Your task to perform on an android device: What's the weather today? Image 0: 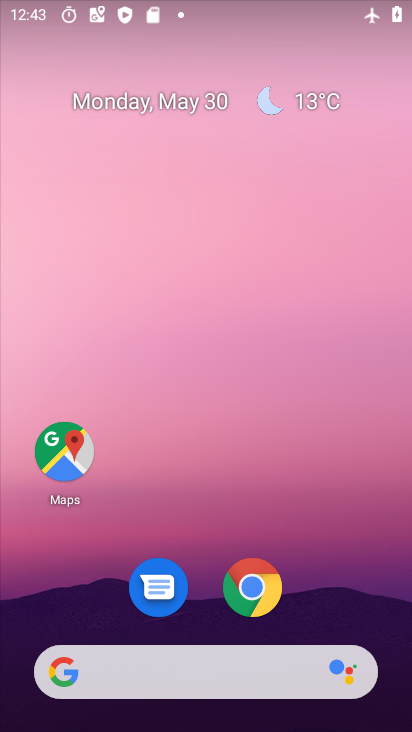
Step 0: drag from (334, 441) to (231, 6)
Your task to perform on an android device: What's the weather today? Image 1: 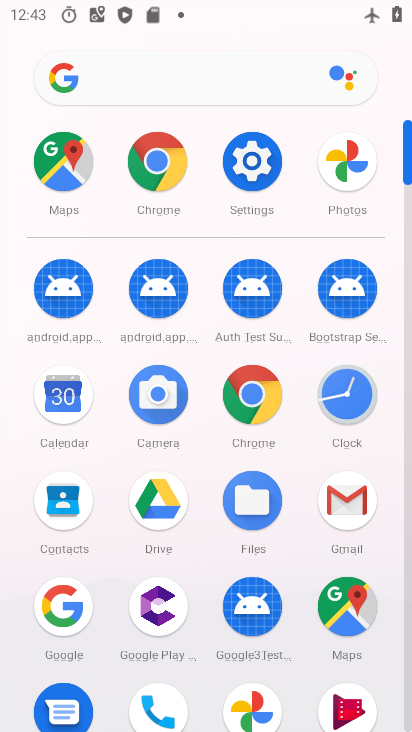
Step 1: press home button
Your task to perform on an android device: What's the weather today? Image 2: 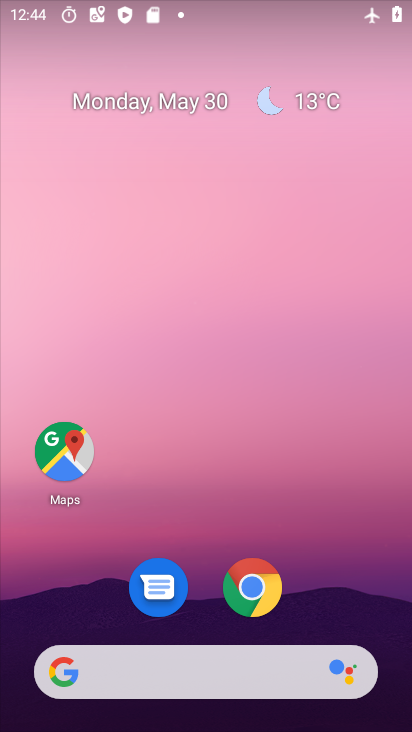
Step 2: click (323, 96)
Your task to perform on an android device: What's the weather today? Image 3: 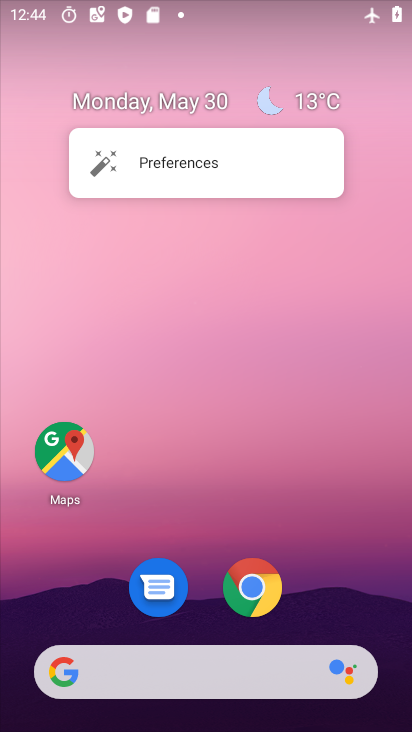
Step 3: click (311, 105)
Your task to perform on an android device: What's the weather today? Image 4: 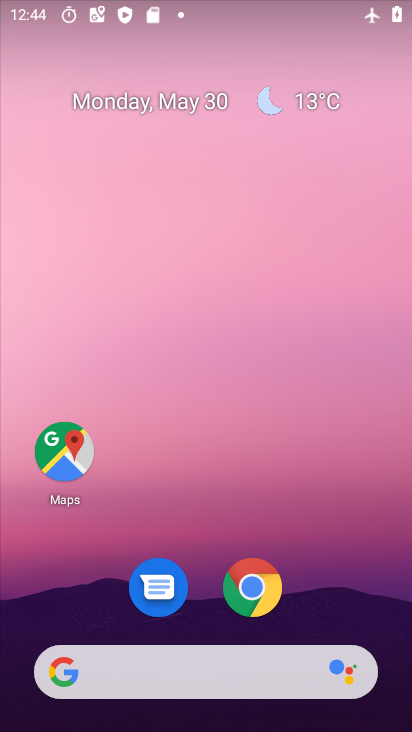
Step 4: click (311, 105)
Your task to perform on an android device: What's the weather today? Image 5: 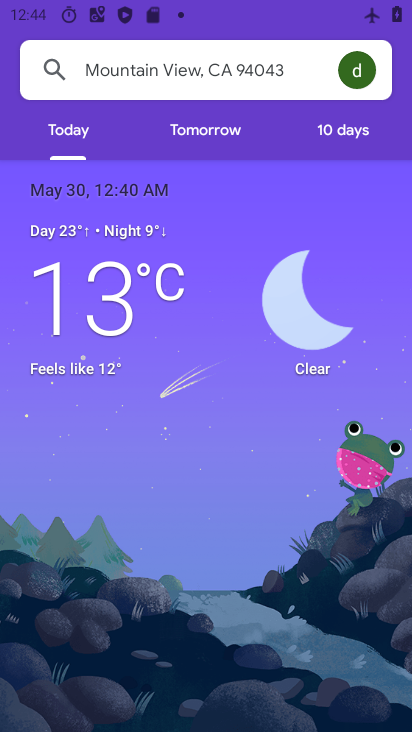
Step 5: task complete